Your task to perform on an android device: change alarm snooze length Image 0: 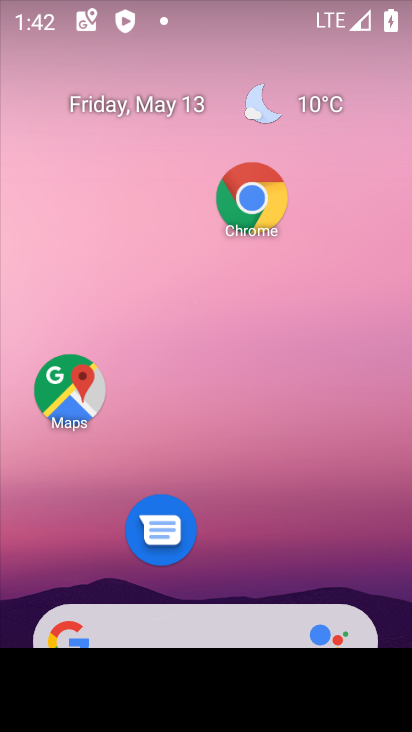
Step 0: drag from (239, 582) to (180, 3)
Your task to perform on an android device: change alarm snooze length Image 1: 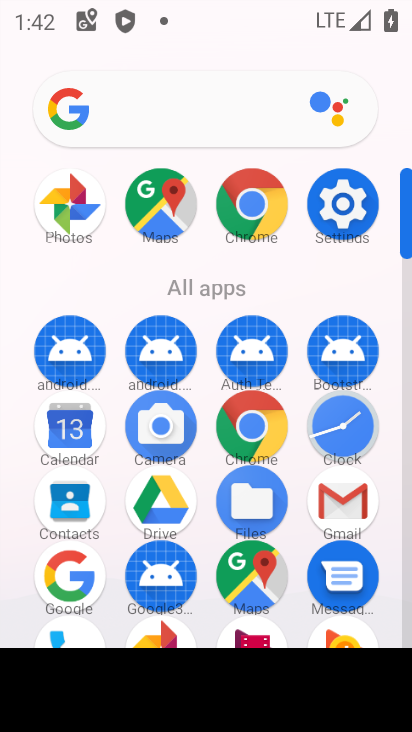
Step 1: drag from (294, 550) to (224, 118)
Your task to perform on an android device: change alarm snooze length Image 2: 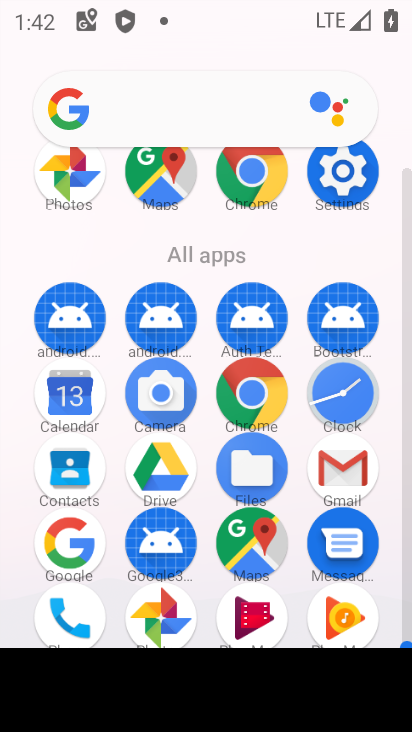
Step 2: click (343, 397)
Your task to perform on an android device: change alarm snooze length Image 3: 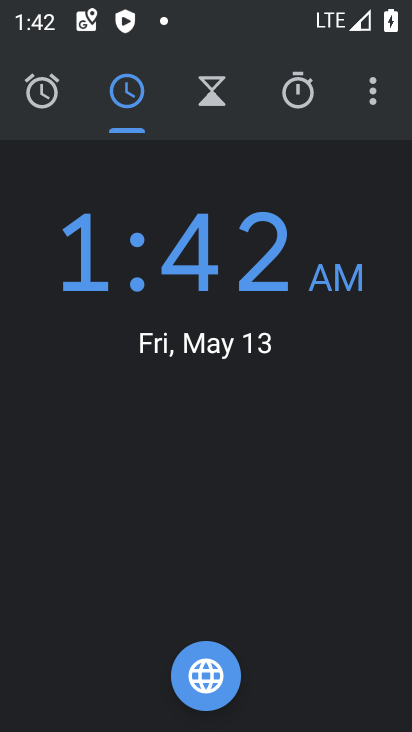
Step 3: click (365, 102)
Your task to perform on an android device: change alarm snooze length Image 4: 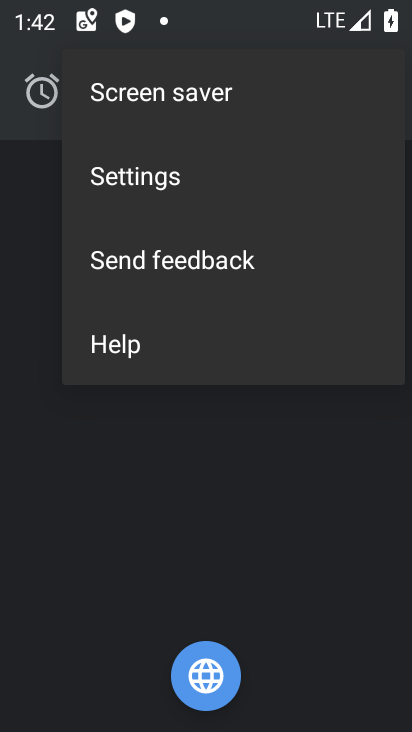
Step 4: click (146, 158)
Your task to perform on an android device: change alarm snooze length Image 5: 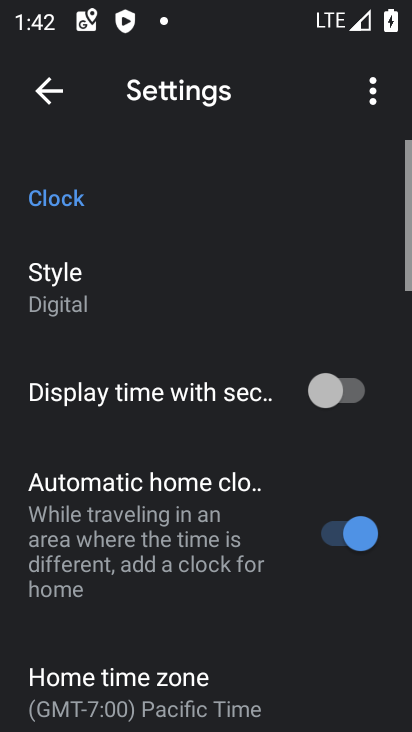
Step 5: drag from (158, 580) to (112, 144)
Your task to perform on an android device: change alarm snooze length Image 6: 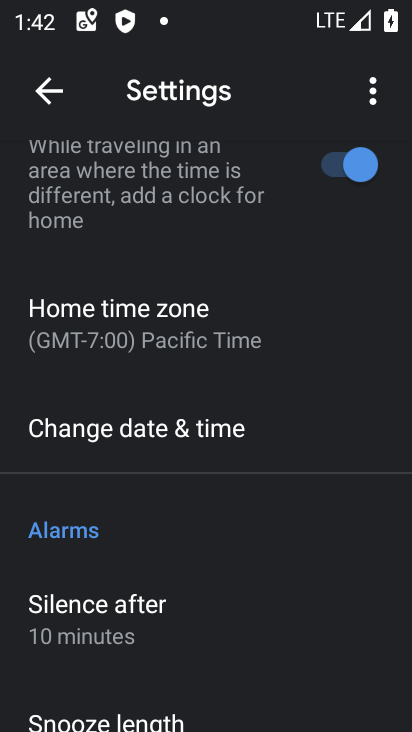
Step 6: drag from (160, 583) to (111, 273)
Your task to perform on an android device: change alarm snooze length Image 7: 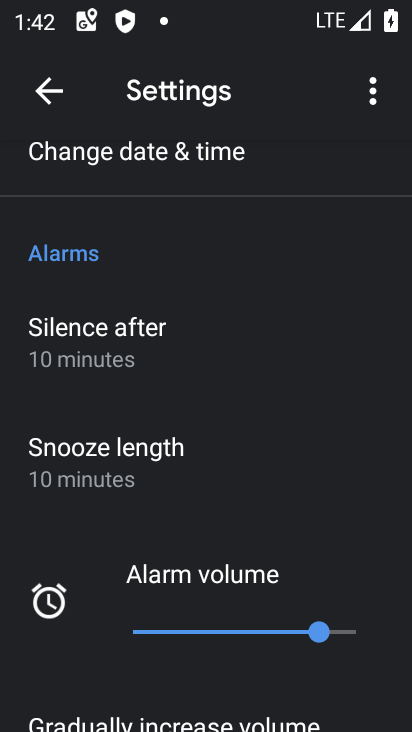
Step 7: drag from (233, 508) to (246, 464)
Your task to perform on an android device: change alarm snooze length Image 8: 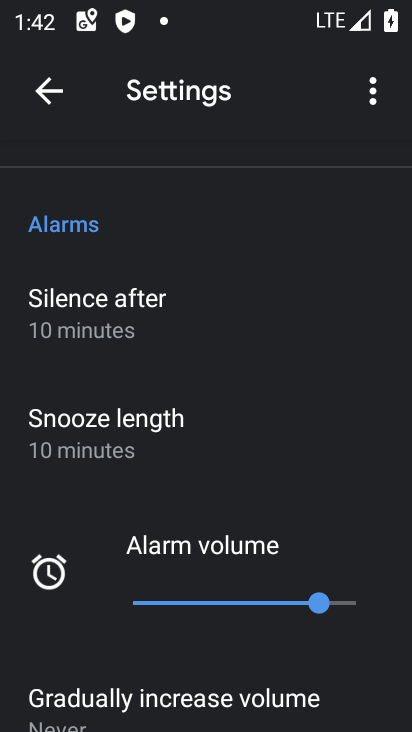
Step 8: click (200, 442)
Your task to perform on an android device: change alarm snooze length Image 9: 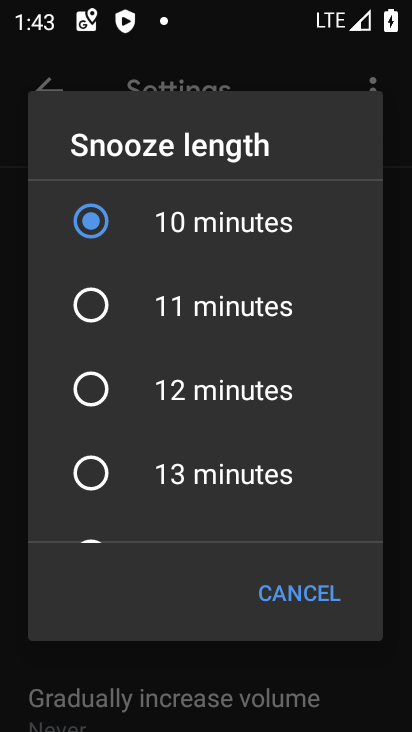
Step 9: click (131, 316)
Your task to perform on an android device: change alarm snooze length Image 10: 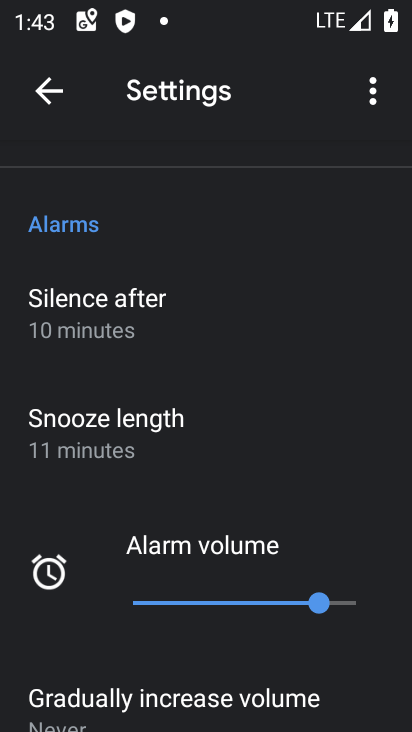
Step 10: task complete